Your task to perform on an android device: turn on data saver in the chrome app Image 0: 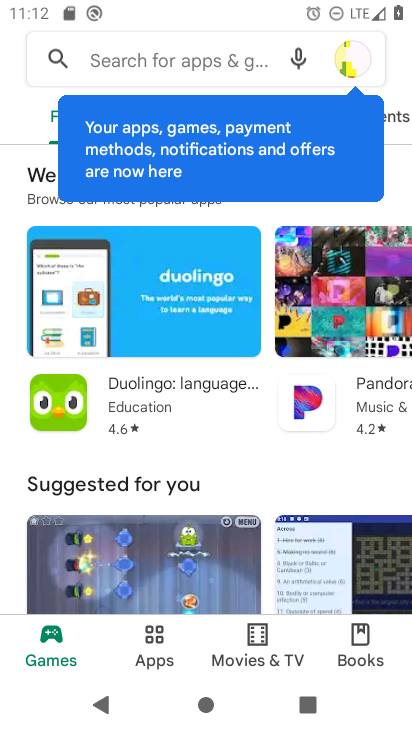
Step 0: press home button
Your task to perform on an android device: turn on data saver in the chrome app Image 1: 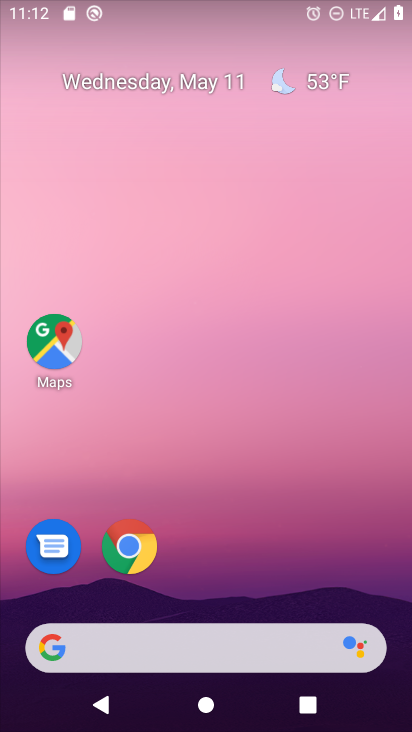
Step 1: click (138, 550)
Your task to perform on an android device: turn on data saver in the chrome app Image 2: 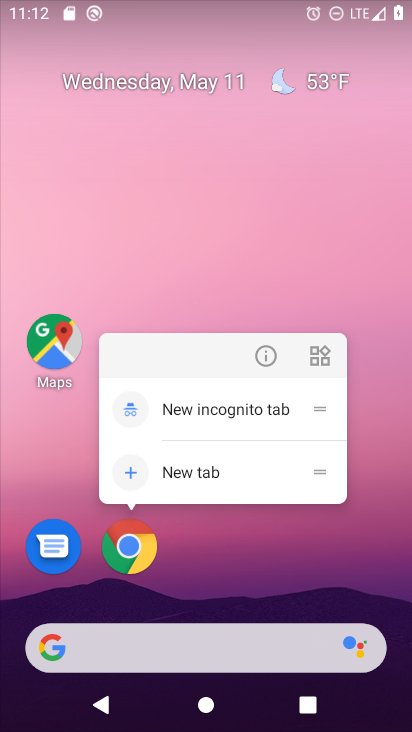
Step 2: click (137, 550)
Your task to perform on an android device: turn on data saver in the chrome app Image 3: 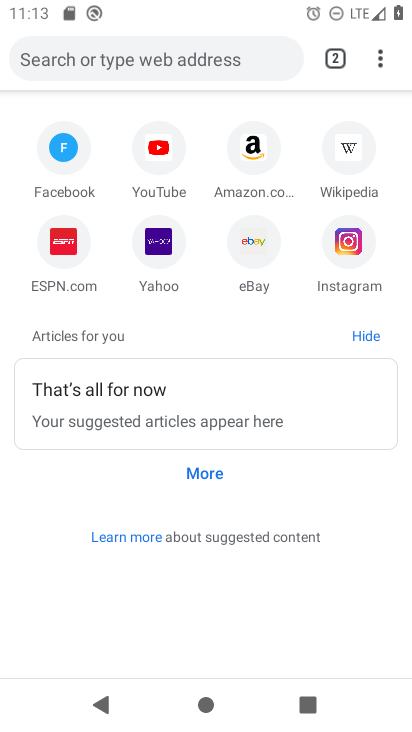
Step 3: click (382, 58)
Your task to perform on an android device: turn on data saver in the chrome app Image 4: 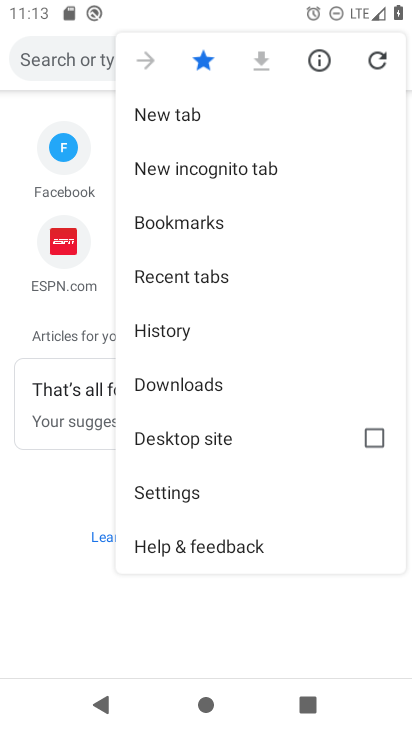
Step 4: click (183, 505)
Your task to perform on an android device: turn on data saver in the chrome app Image 5: 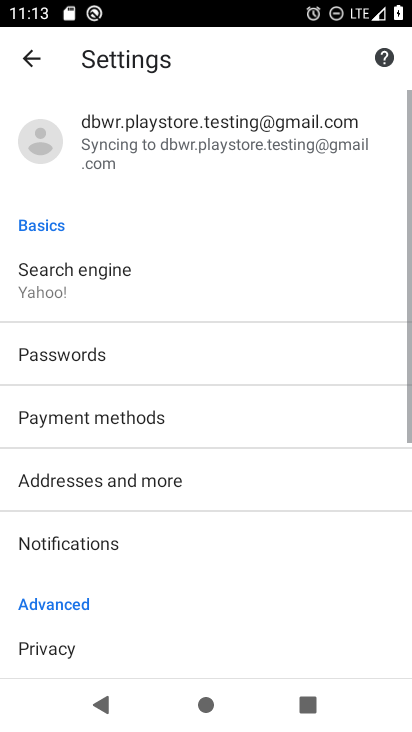
Step 5: drag from (135, 615) to (199, 138)
Your task to perform on an android device: turn on data saver in the chrome app Image 6: 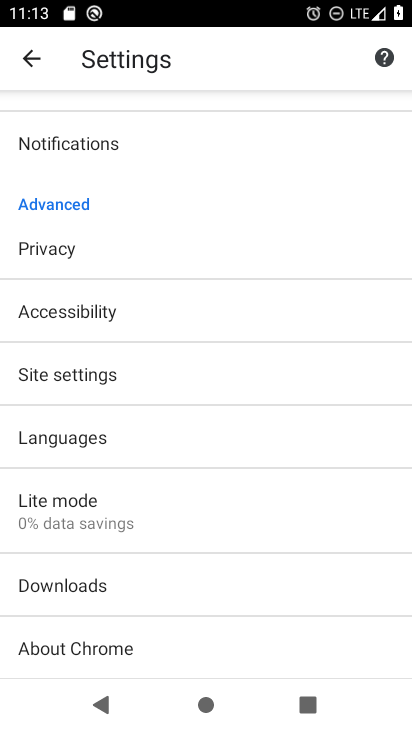
Step 6: click (115, 496)
Your task to perform on an android device: turn on data saver in the chrome app Image 7: 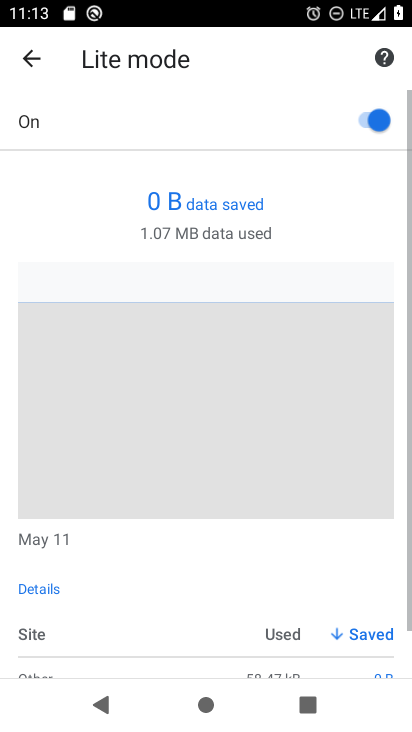
Step 7: task complete